Your task to perform on an android device: Open Yahoo.com Image 0: 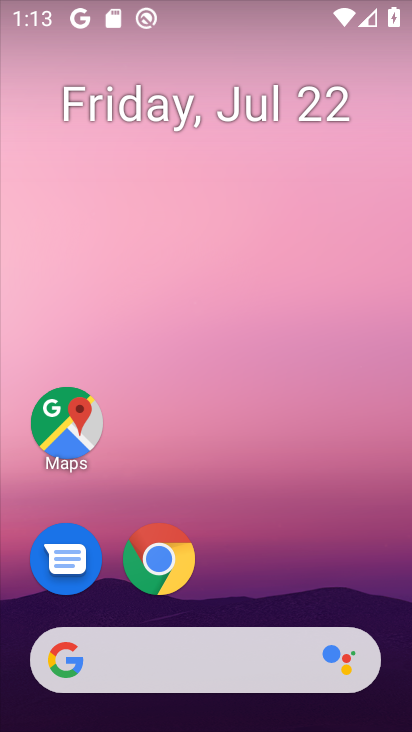
Step 0: click (152, 588)
Your task to perform on an android device: Open Yahoo.com Image 1: 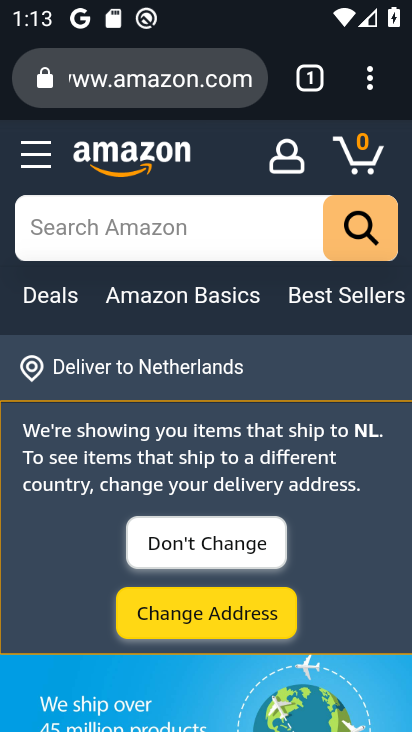
Step 1: click (305, 72)
Your task to perform on an android device: Open Yahoo.com Image 2: 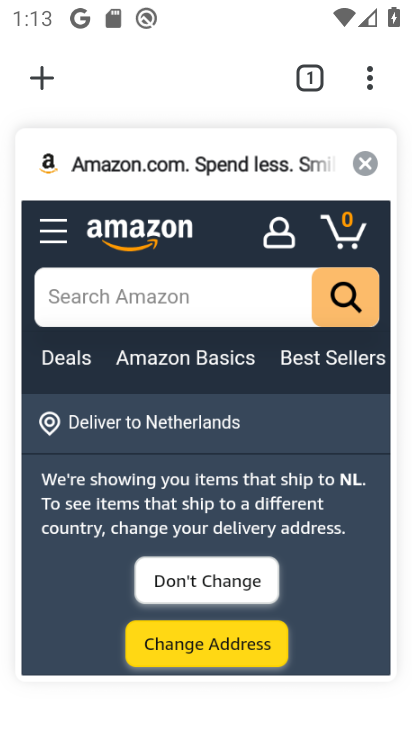
Step 2: click (42, 69)
Your task to perform on an android device: Open Yahoo.com Image 3: 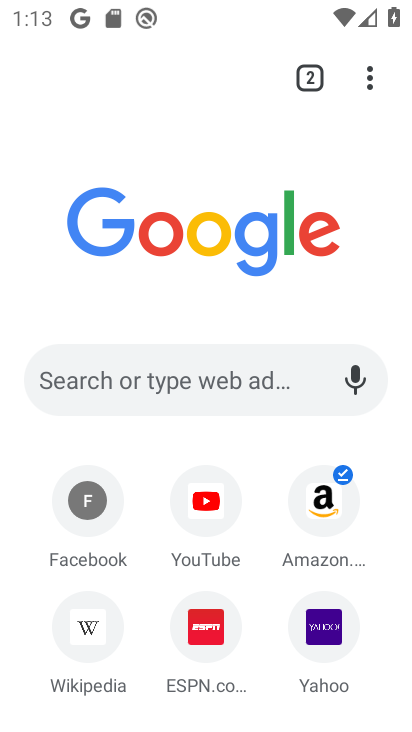
Step 3: click (324, 650)
Your task to perform on an android device: Open Yahoo.com Image 4: 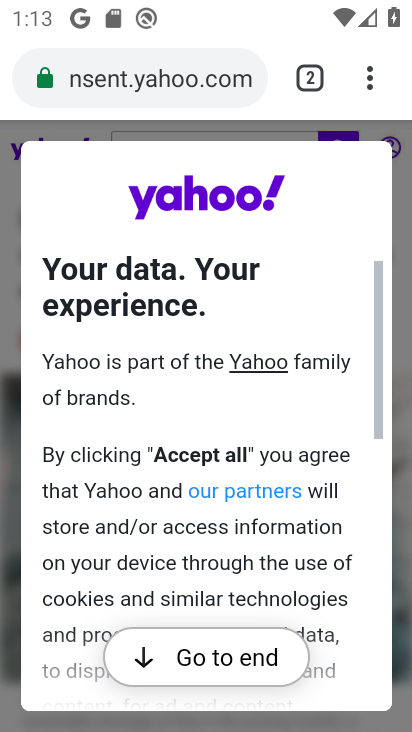
Step 4: task complete